Your task to perform on an android device: Open the phone app and click the voicemail tab. Image 0: 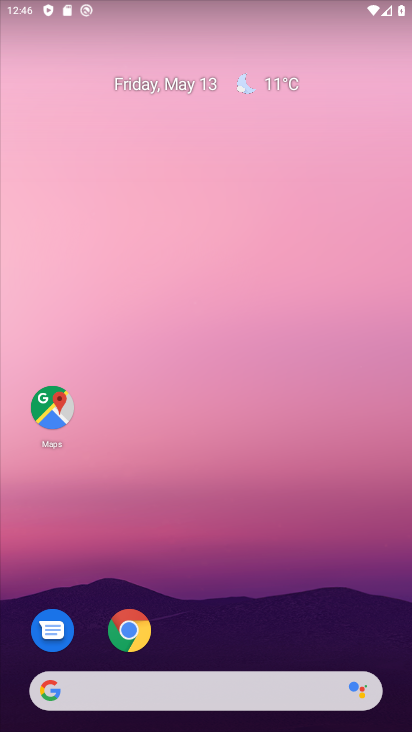
Step 0: press home button
Your task to perform on an android device: Open the phone app and click the voicemail tab. Image 1: 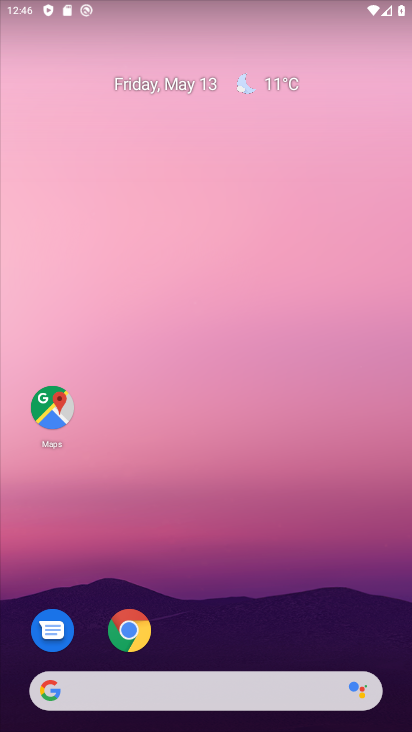
Step 1: drag from (212, 667) to (213, 117)
Your task to perform on an android device: Open the phone app and click the voicemail tab. Image 2: 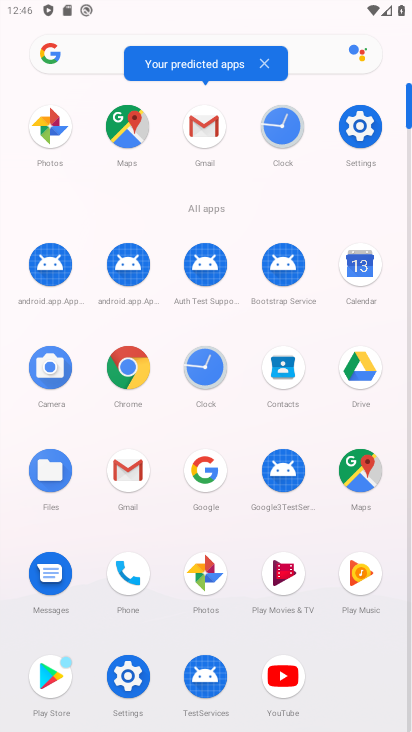
Step 2: click (118, 572)
Your task to perform on an android device: Open the phone app and click the voicemail tab. Image 3: 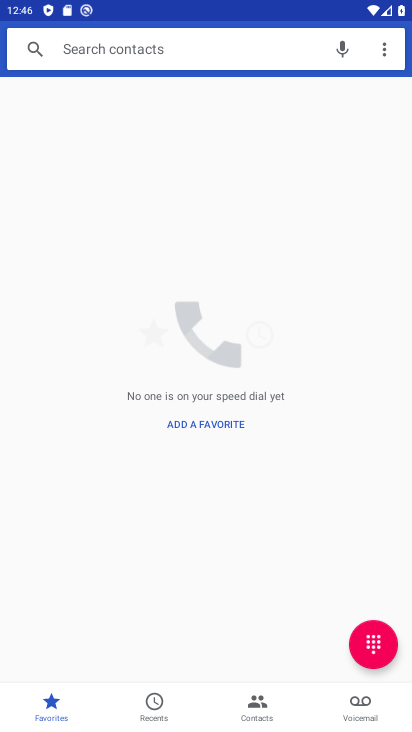
Step 3: click (337, 702)
Your task to perform on an android device: Open the phone app and click the voicemail tab. Image 4: 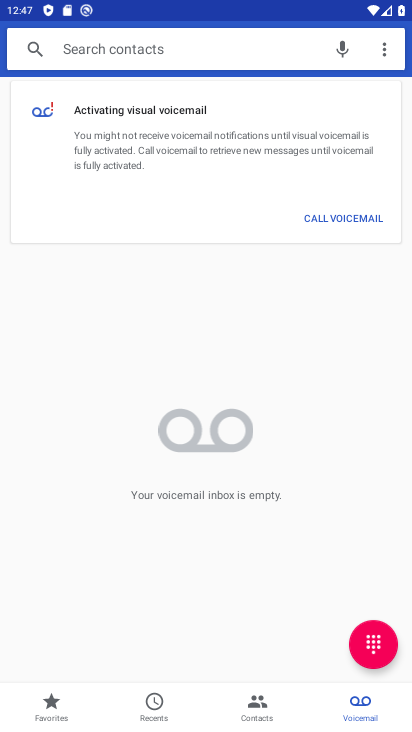
Step 4: task complete